Your task to perform on an android device: Go to Yahoo.com Image 0: 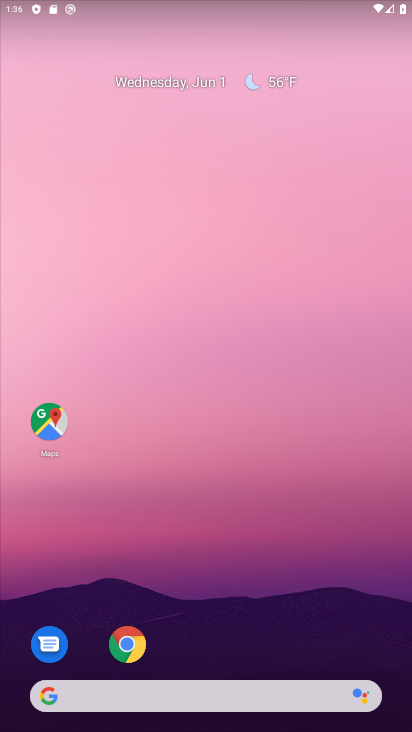
Step 0: click (116, 646)
Your task to perform on an android device: Go to Yahoo.com Image 1: 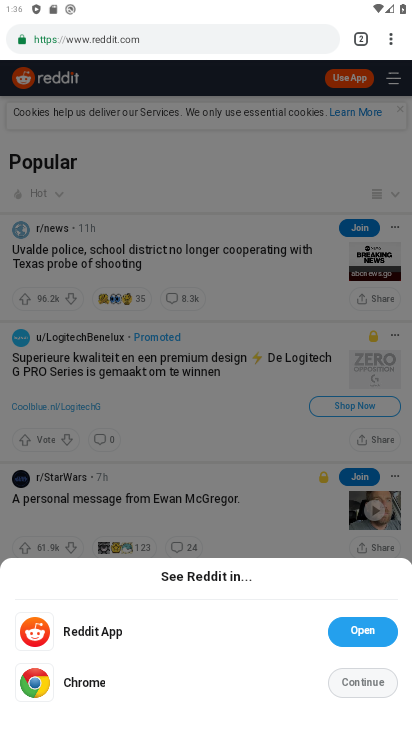
Step 1: click (366, 36)
Your task to perform on an android device: Go to Yahoo.com Image 2: 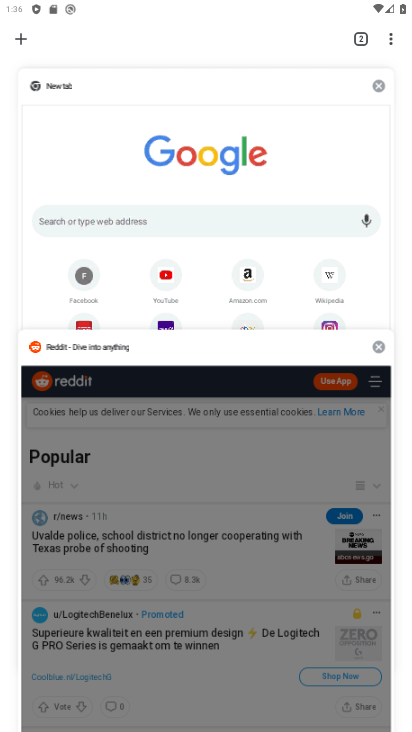
Step 2: click (377, 86)
Your task to perform on an android device: Go to Yahoo.com Image 3: 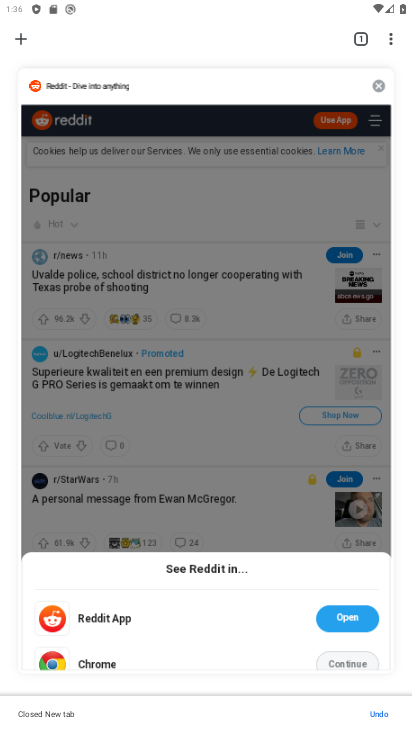
Step 3: click (377, 86)
Your task to perform on an android device: Go to Yahoo.com Image 4: 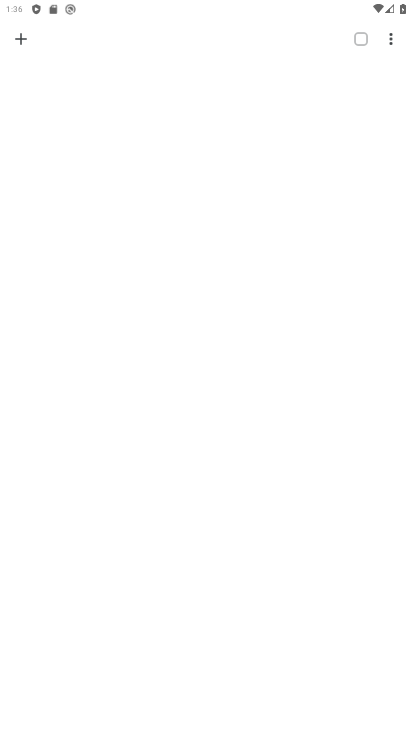
Step 4: click (22, 44)
Your task to perform on an android device: Go to Yahoo.com Image 5: 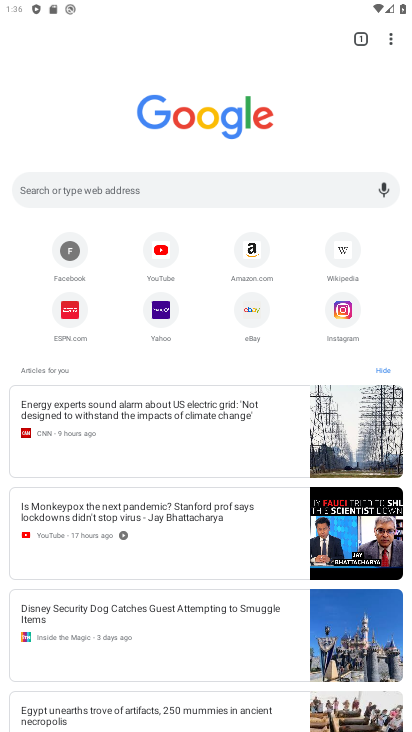
Step 5: click (163, 310)
Your task to perform on an android device: Go to Yahoo.com Image 6: 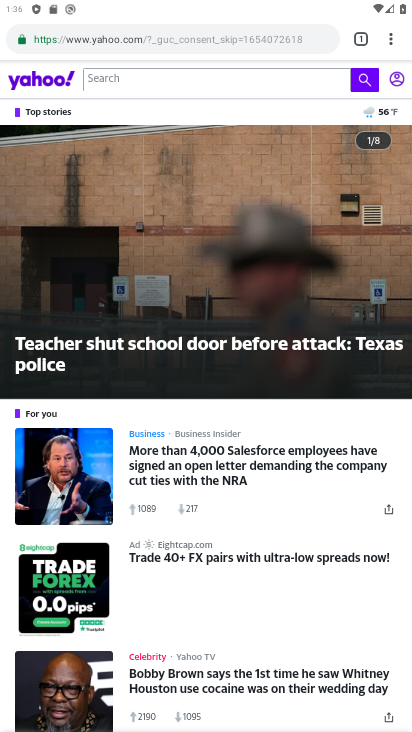
Step 6: task complete